Your task to perform on an android device: open app "Truecaller" (install if not already installed) and go to login screen Image 0: 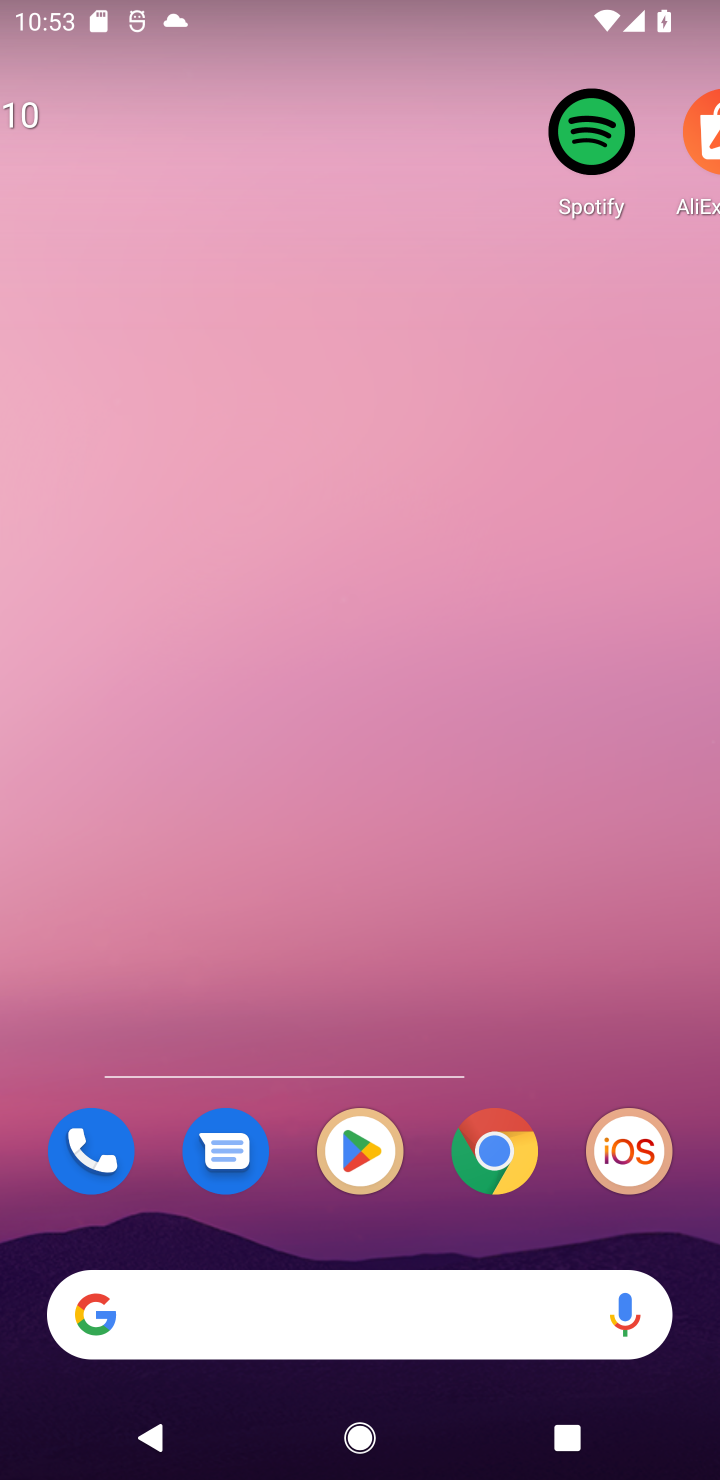
Step 0: press home button
Your task to perform on an android device: open app "Truecaller" (install if not already installed) and go to login screen Image 1: 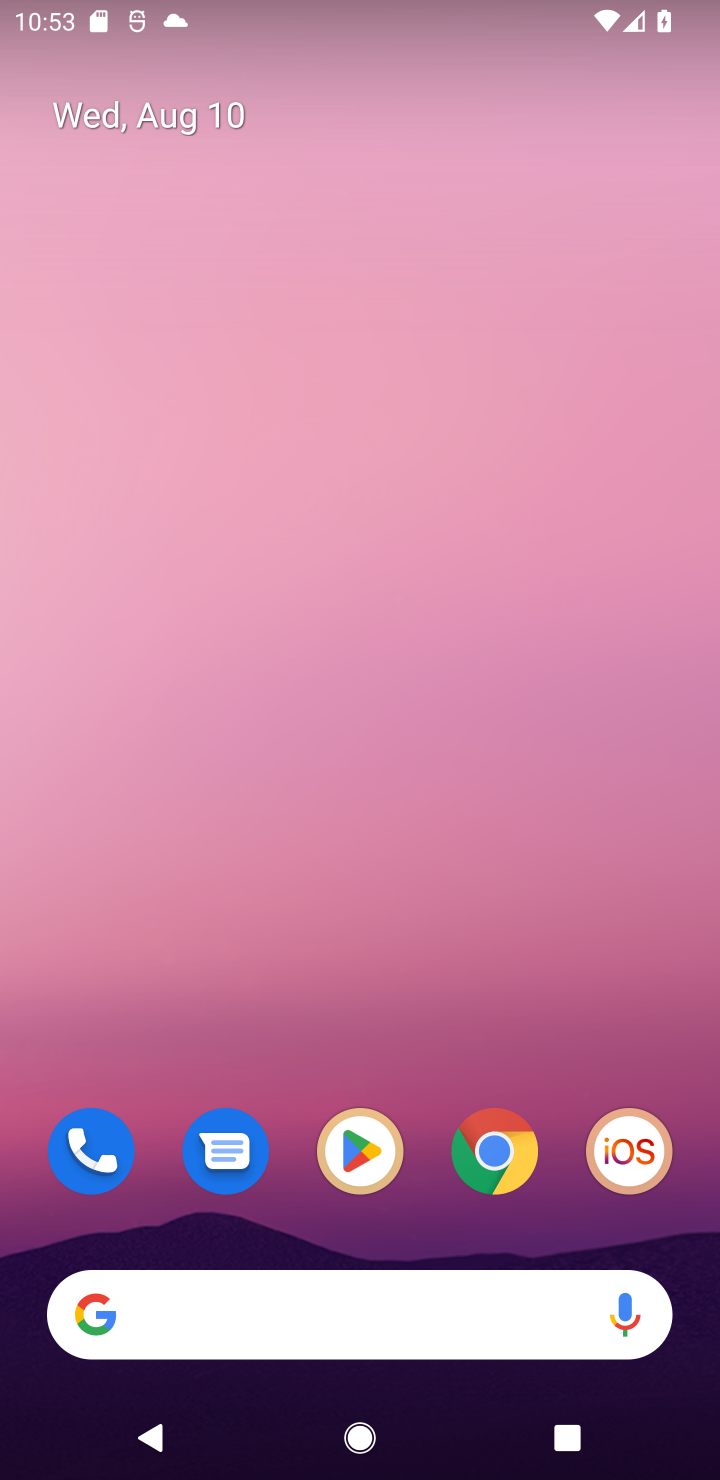
Step 1: drag from (419, 1215) to (505, 215)
Your task to perform on an android device: open app "Truecaller" (install if not already installed) and go to login screen Image 2: 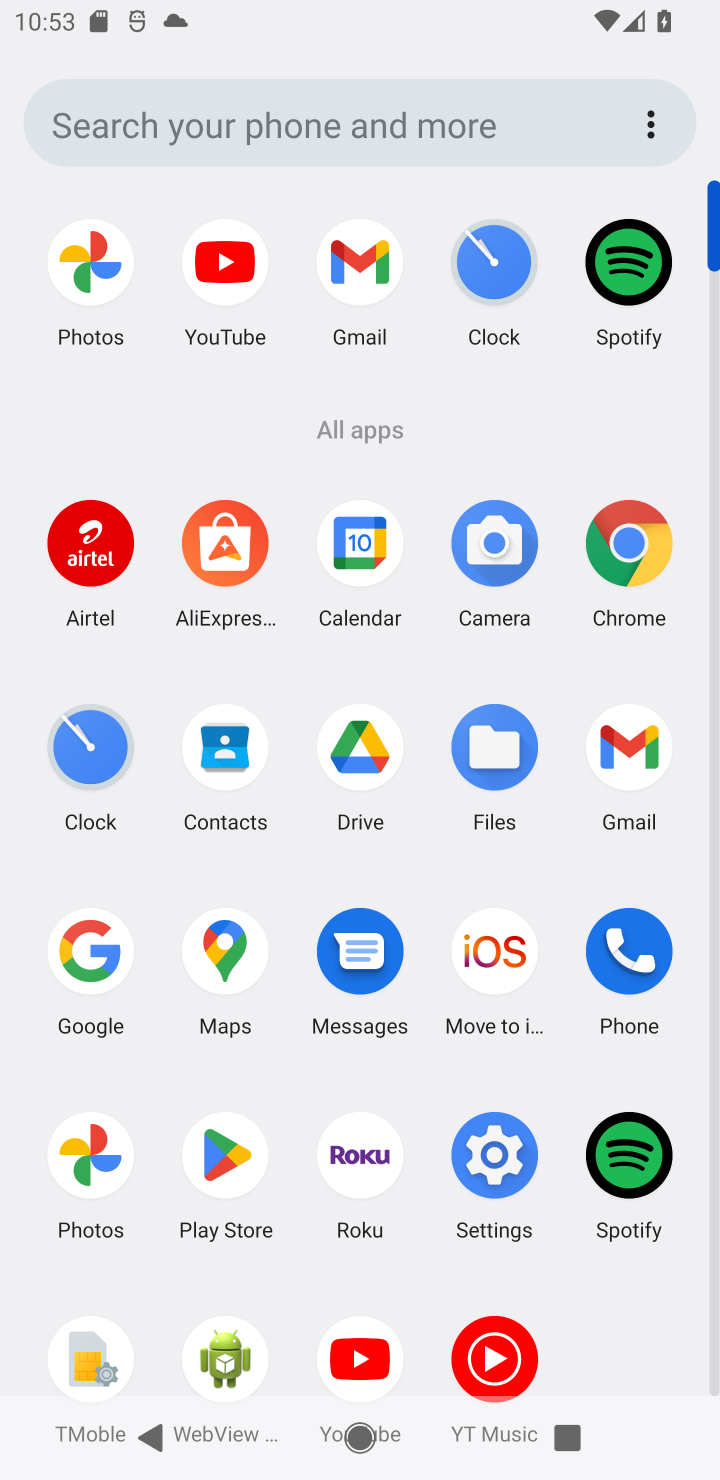
Step 2: click (229, 1153)
Your task to perform on an android device: open app "Truecaller" (install if not already installed) and go to login screen Image 3: 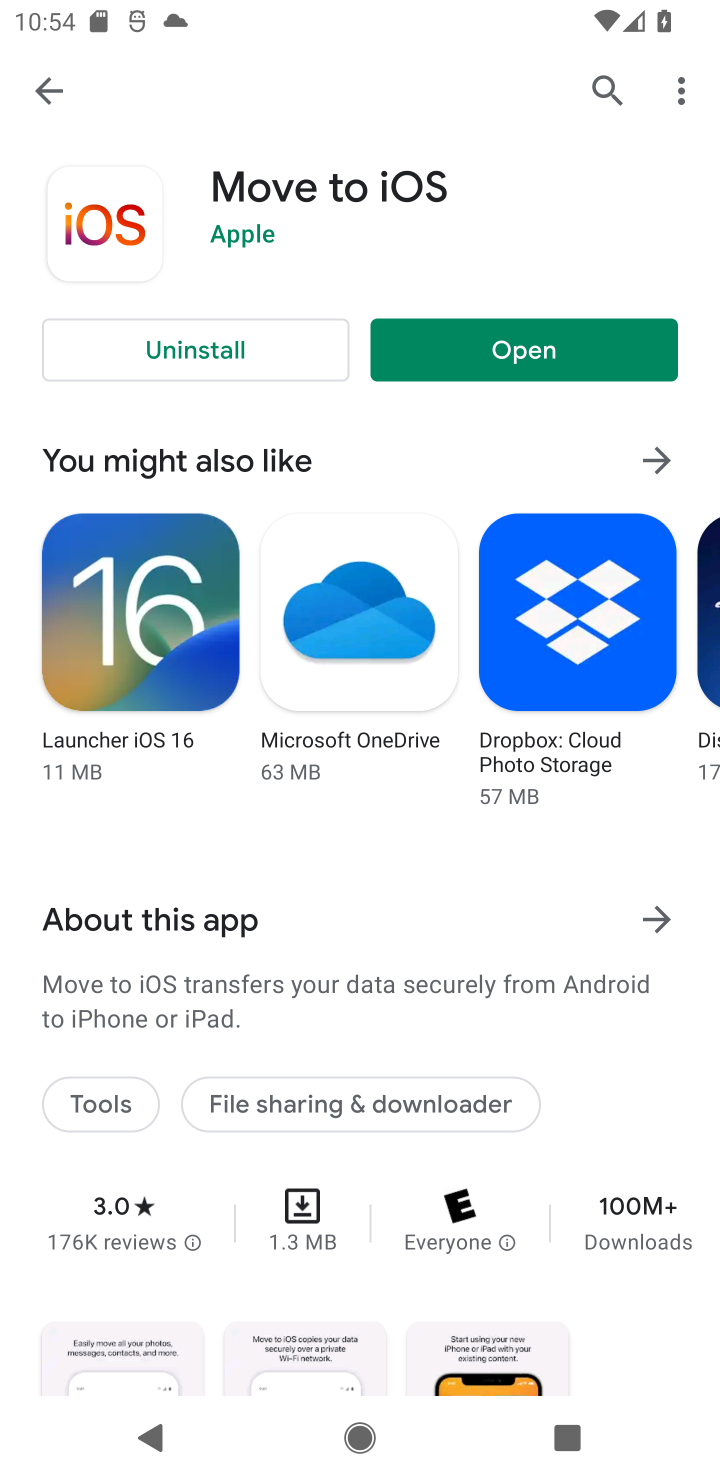
Step 3: click (615, 102)
Your task to perform on an android device: open app "Truecaller" (install if not already installed) and go to login screen Image 4: 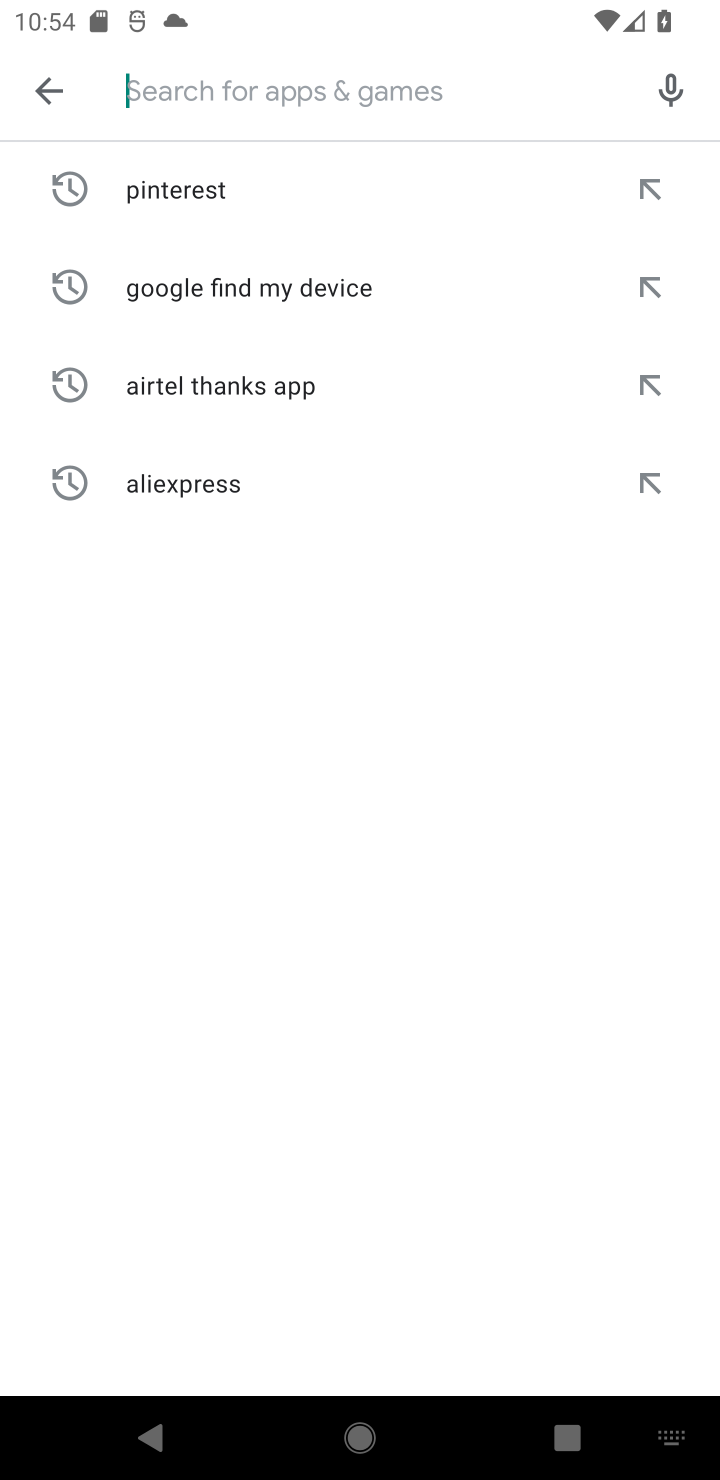
Step 4: type "Truecaller"
Your task to perform on an android device: open app "Truecaller" (install if not already installed) and go to login screen Image 5: 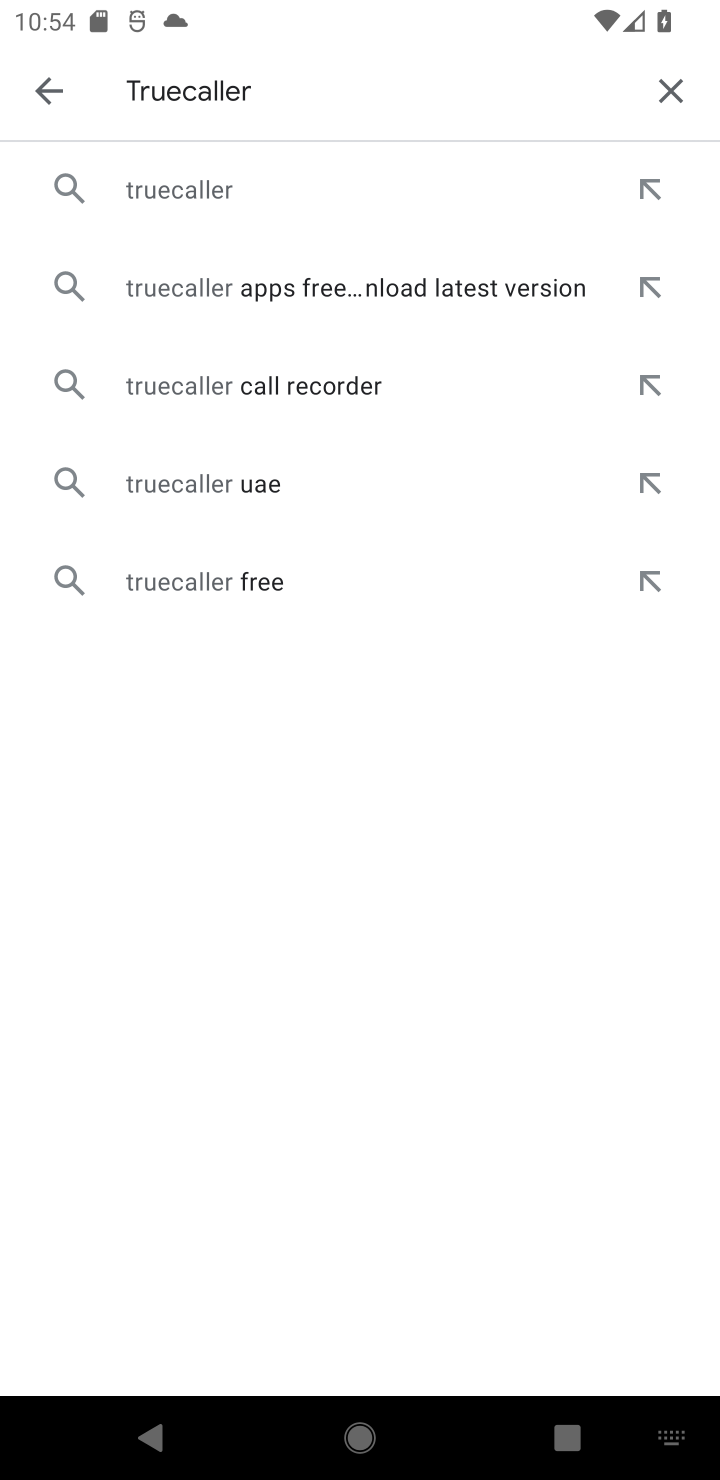
Step 5: click (311, 179)
Your task to perform on an android device: open app "Truecaller" (install if not already installed) and go to login screen Image 6: 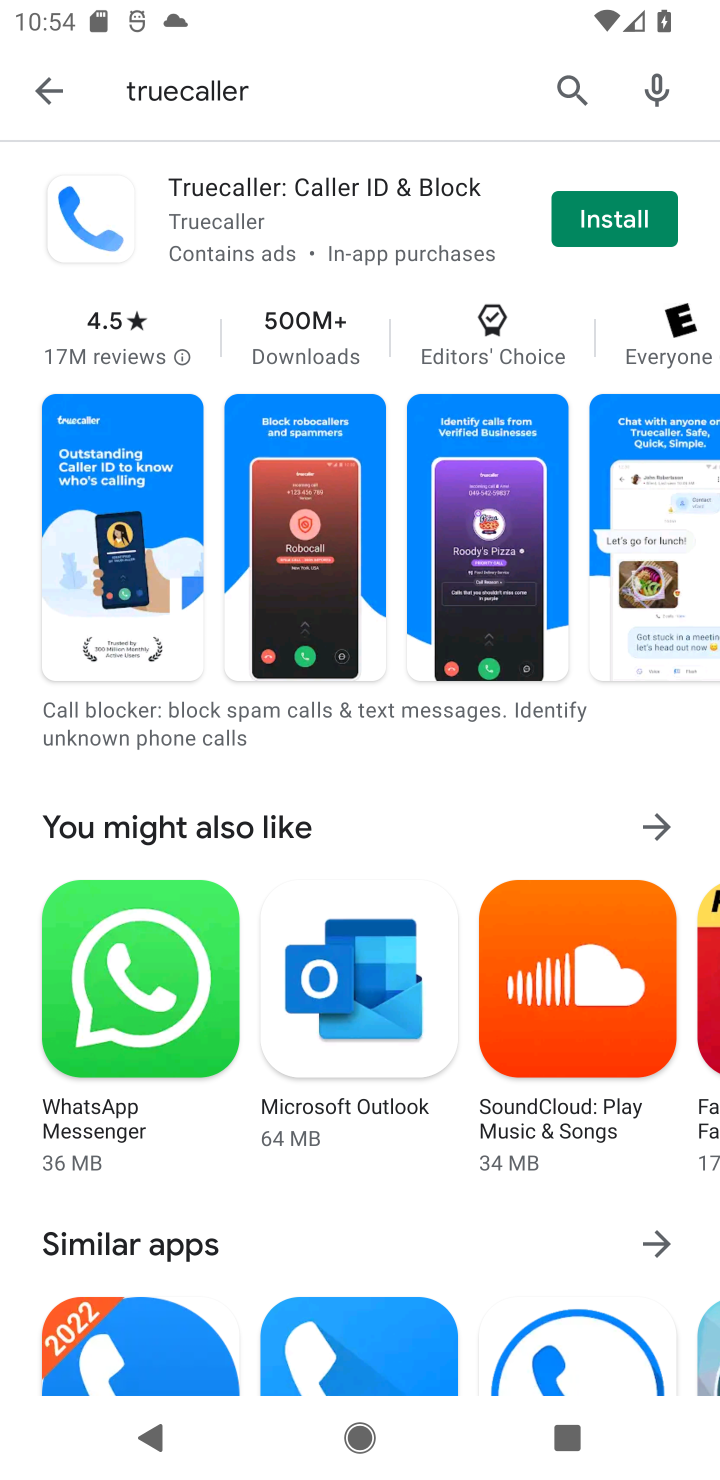
Step 6: click (626, 215)
Your task to perform on an android device: open app "Truecaller" (install if not already installed) and go to login screen Image 7: 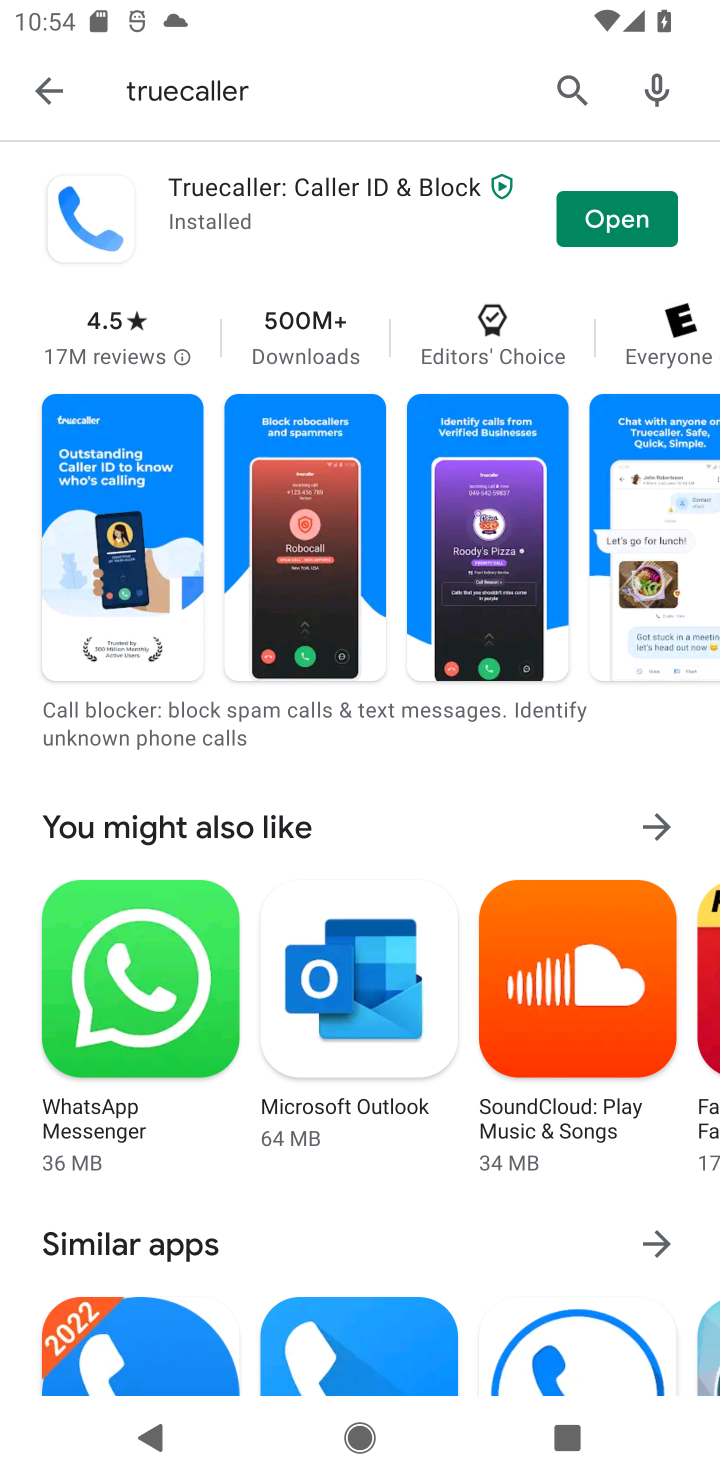
Step 7: click (617, 224)
Your task to perform on an android device: open app "Truecaller" (install if not already installed) and go to login screen Image 8: 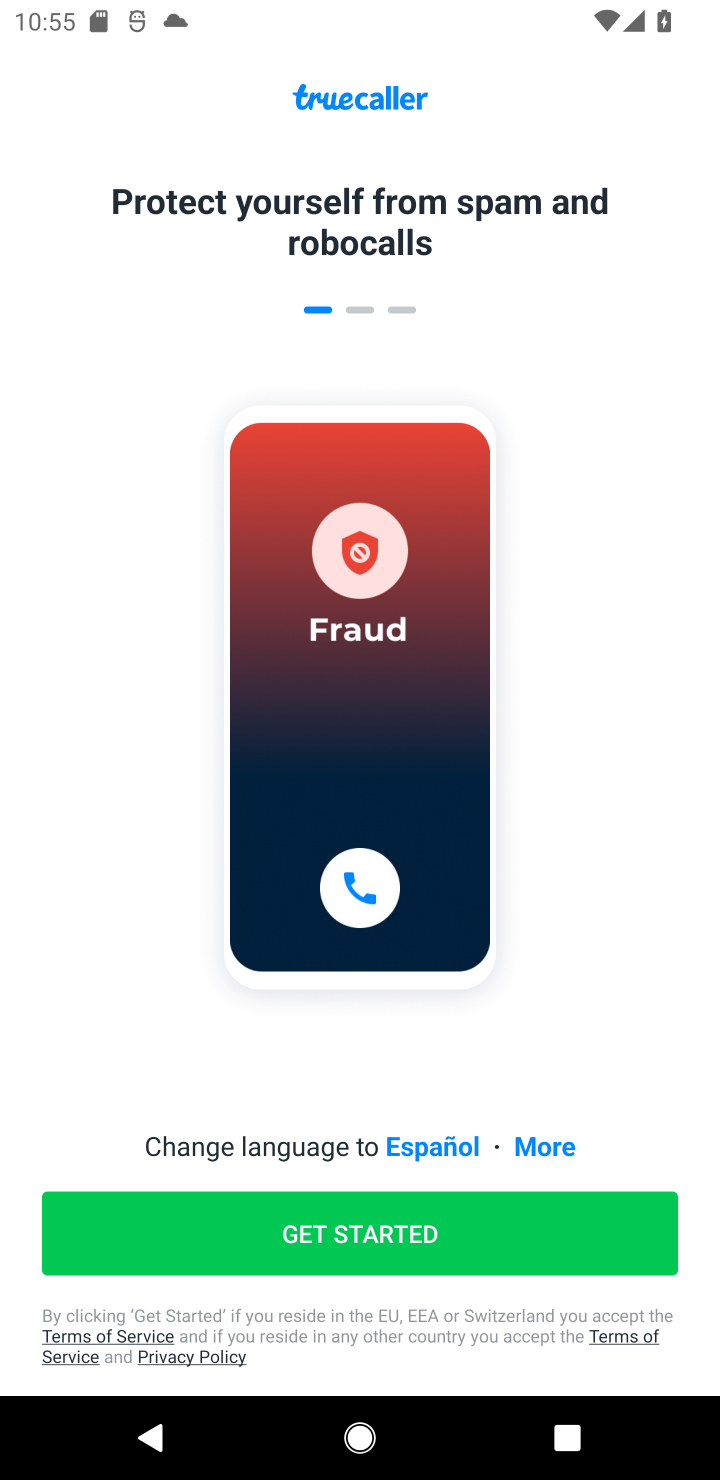
Step 8: click (344, 1240)
Your task to perform on an android device: open app "Truecaller" (install if not already installed) and go to login screen Image 9: 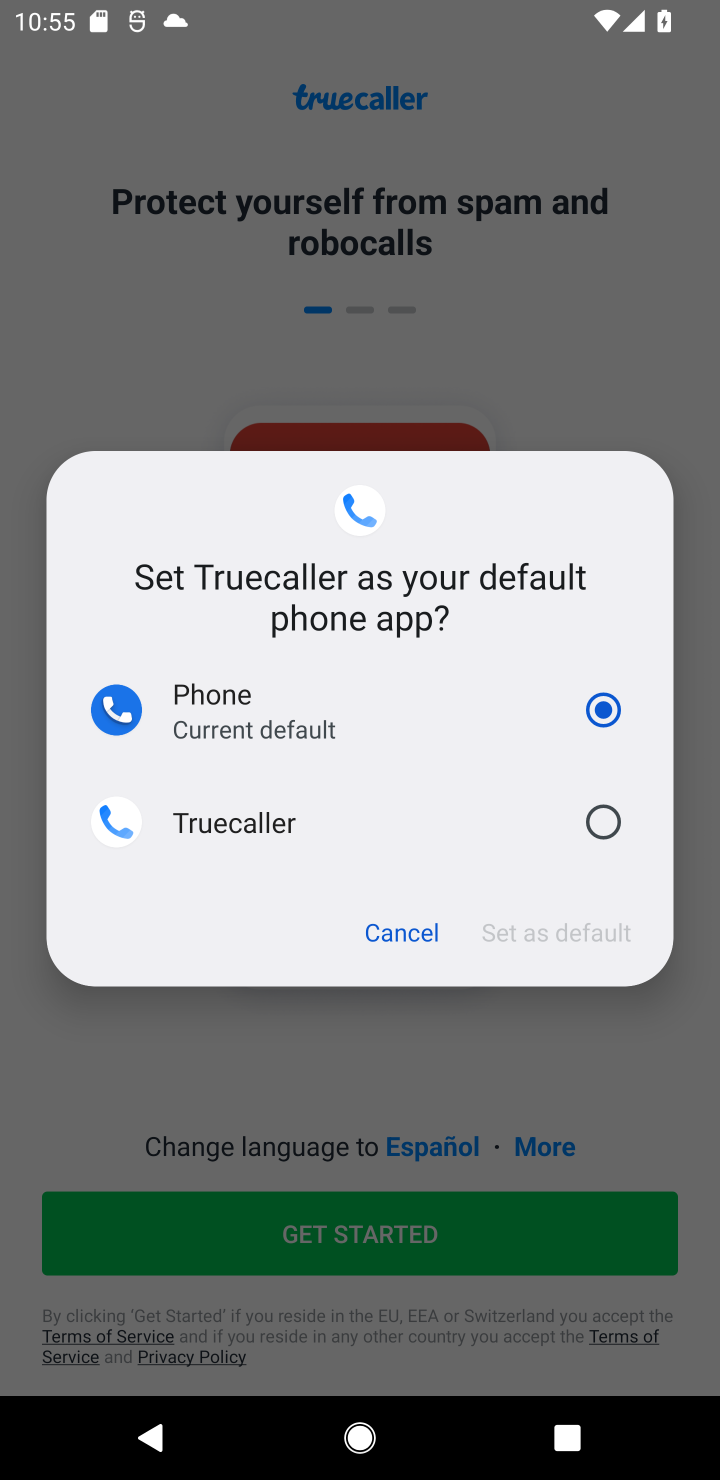
Step 9: click (600, 814)
Your task to perform on an android device: open app "Truecaller" (install if not already installed) and go to login screen Image 10: 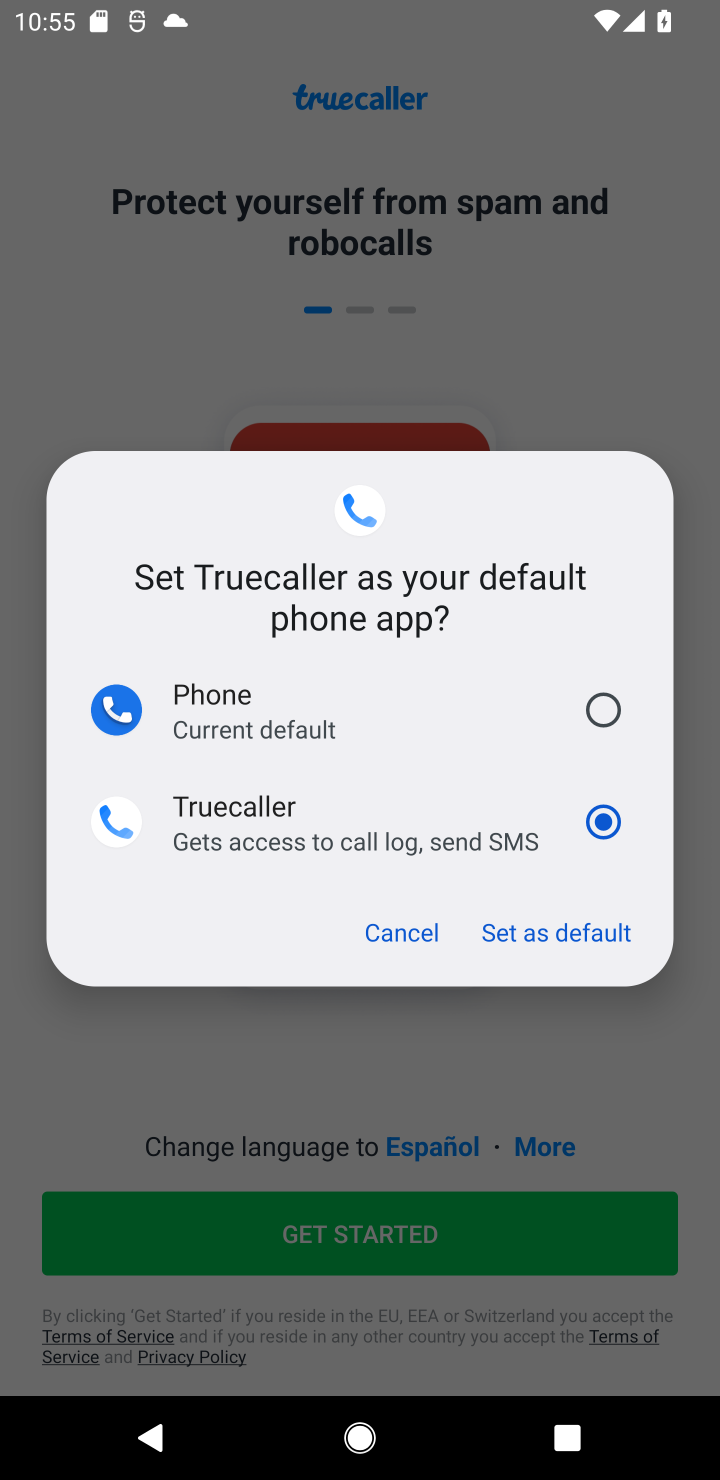
Step 10: click (564, 926)
Your task to perform on an android device: open app "Truecaller" (install if not already installed) and go to login screen Image 11: 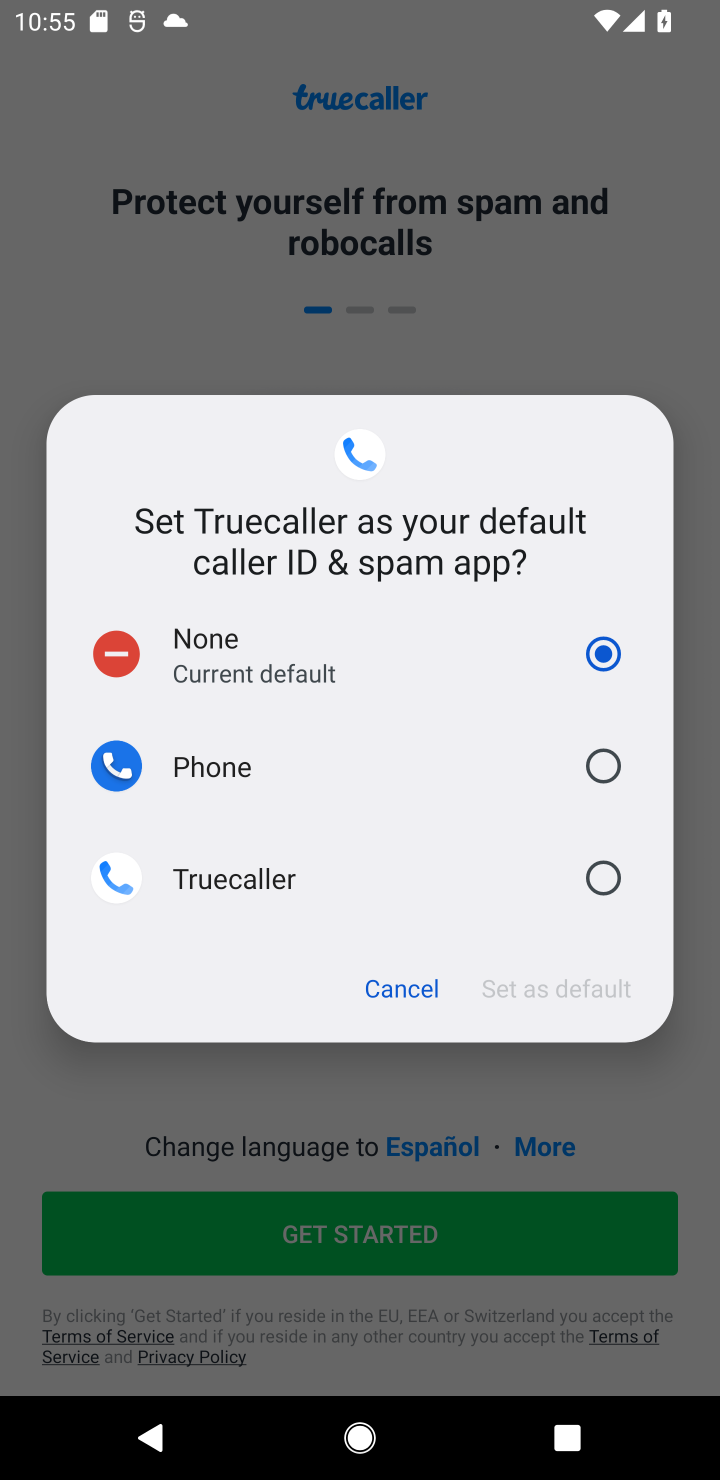
Step 11: click (607, 773)
Your task to perform on an android device: open app "Truecaller" (install if not already installed) and go to login screen Image 12: 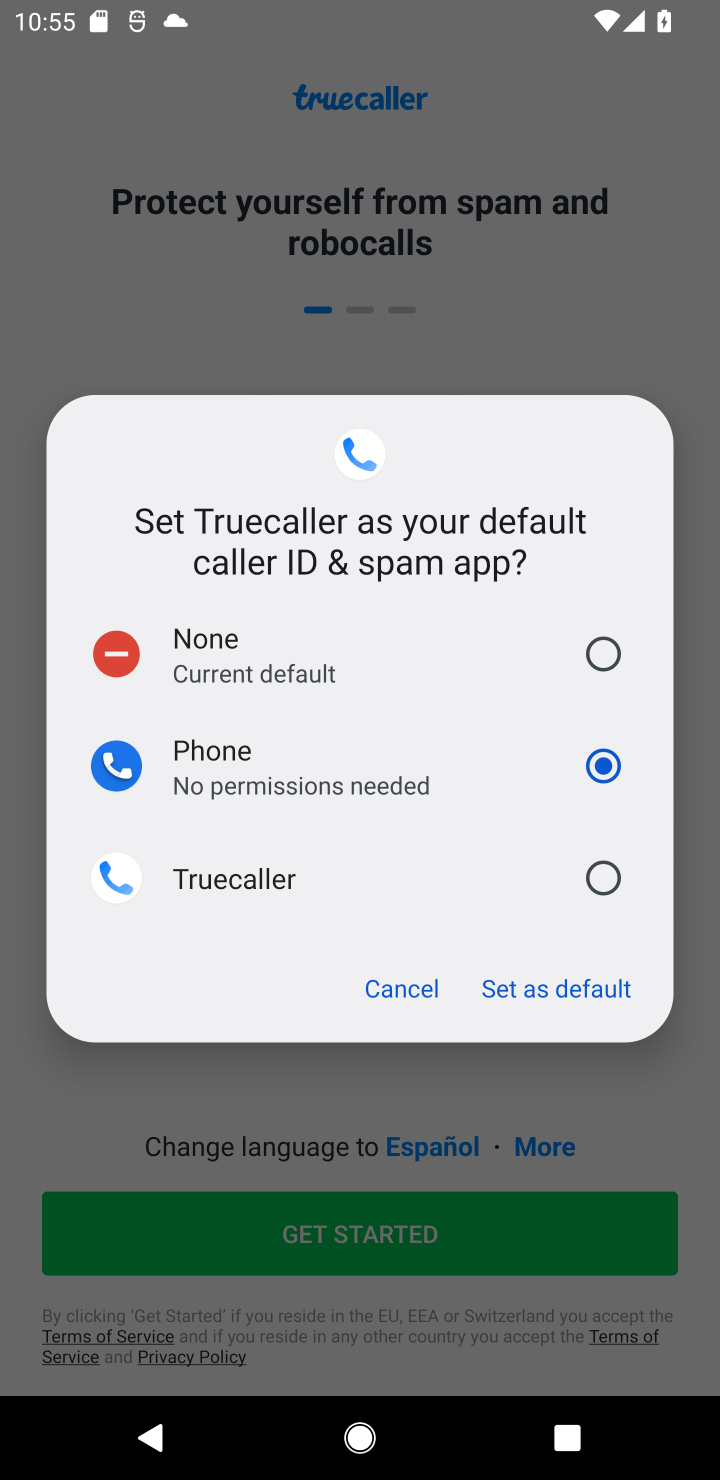
Step 12: click (582, 995)
Your task to perform on an android device: open app "Truecaller" (install if not already installed) and go to login screen Image 13: 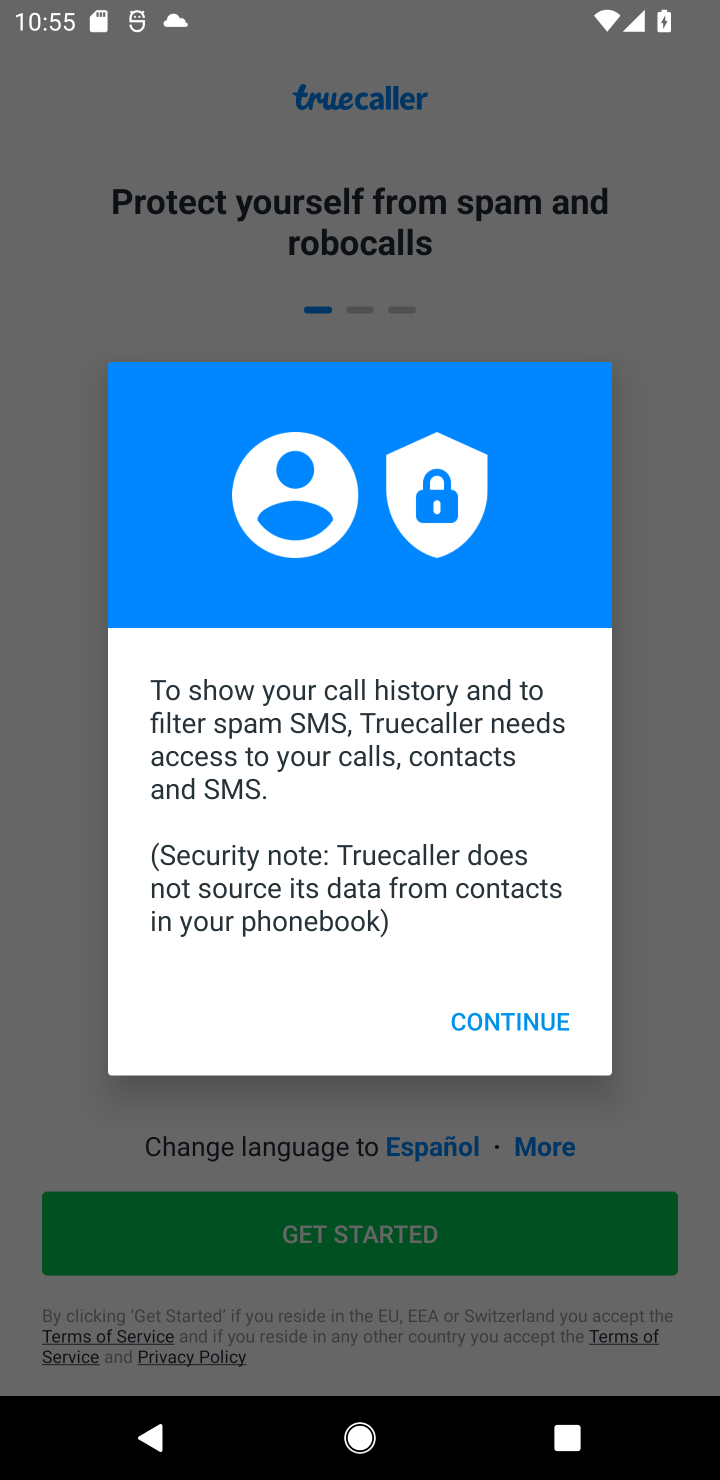
Step 13: click (511, 1028)
Your task to perform on an android device: open app "Truecaller" (install if not already installed) and go to login screen Image 14: 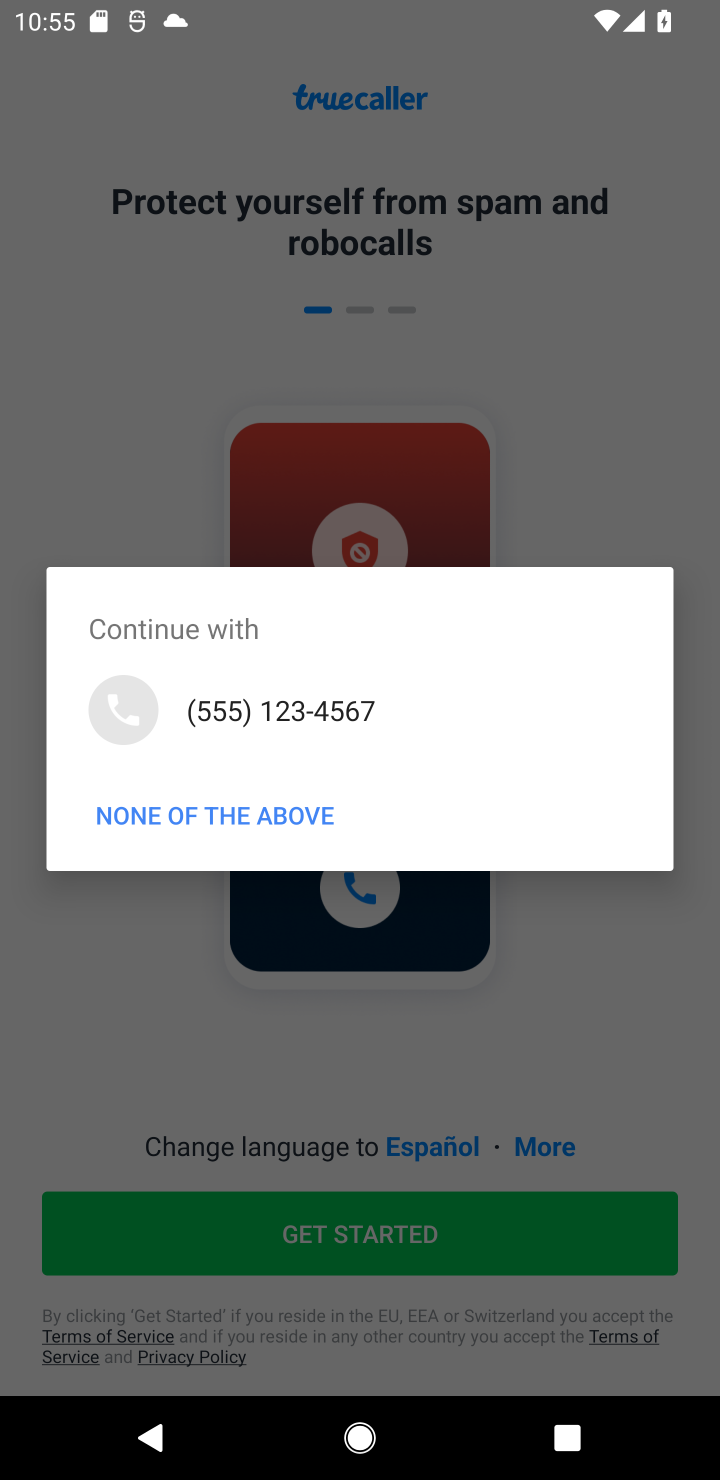
Step 14: click (303, 729)
Your task to perform on an android device: open app "Truecaller" (install if not already installed) and go to login screen Image 15: 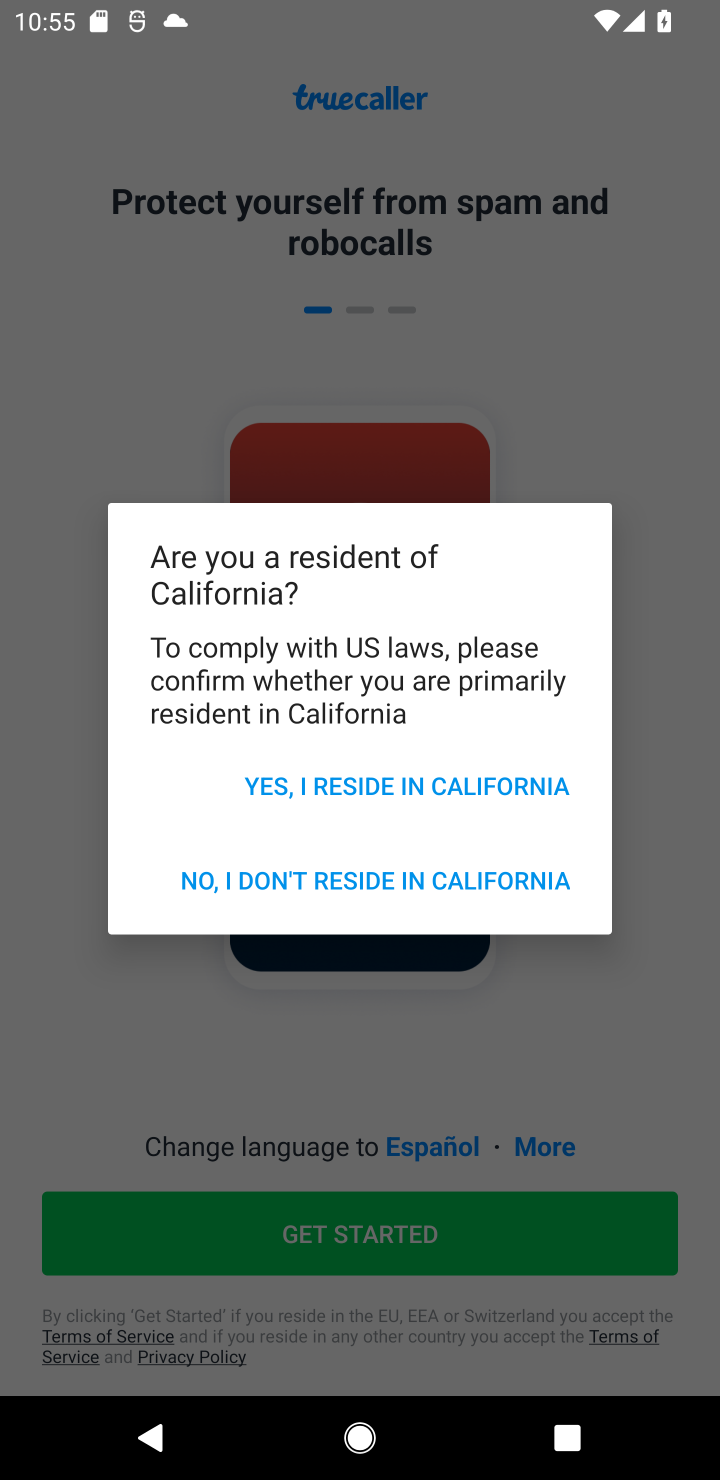
Step 15: click (430, 803)
Your task to perform on an android device: open app "Truecaller" (install if not already installed) and go to login screen Image 16: 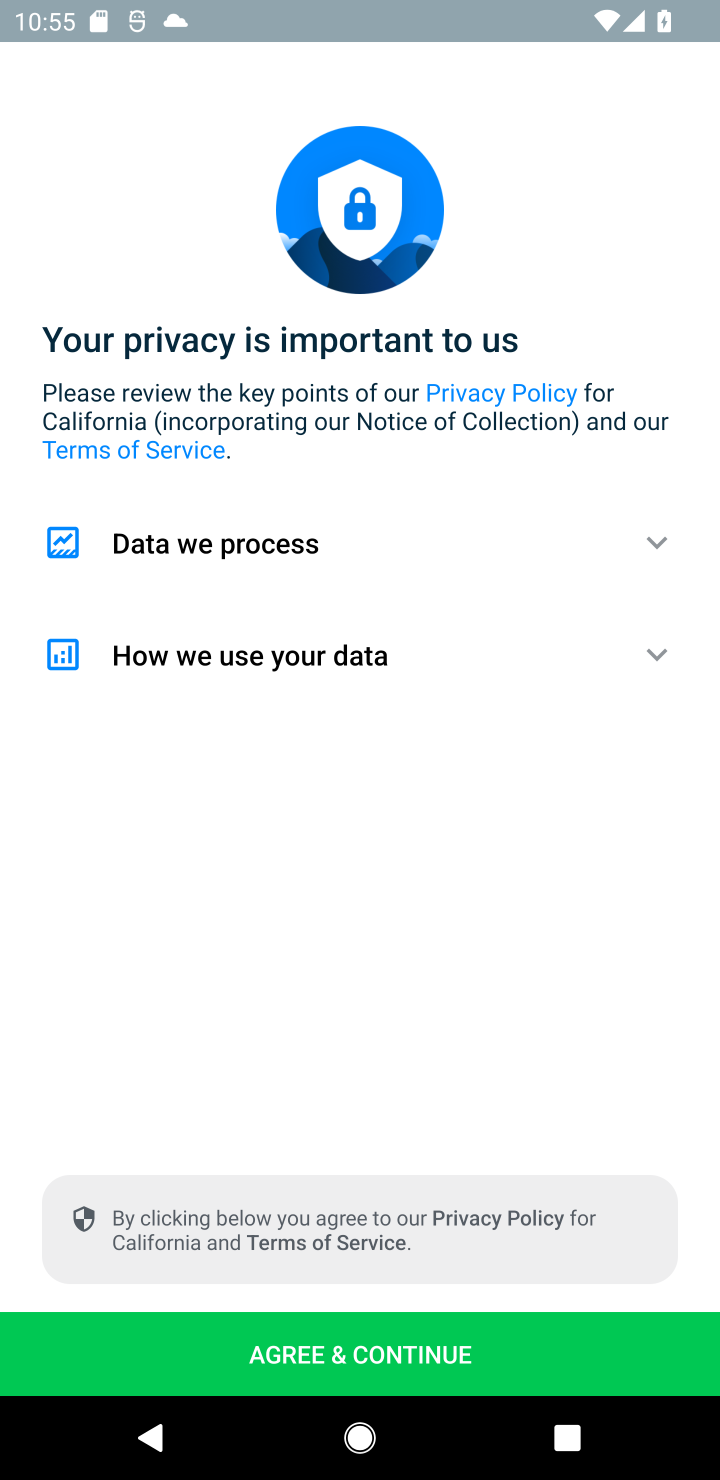
Step 16: click (473, 1357)
Your task to perform on an android device: open app "Truecaller" (install if not already installed) and go to login screen Image 17: 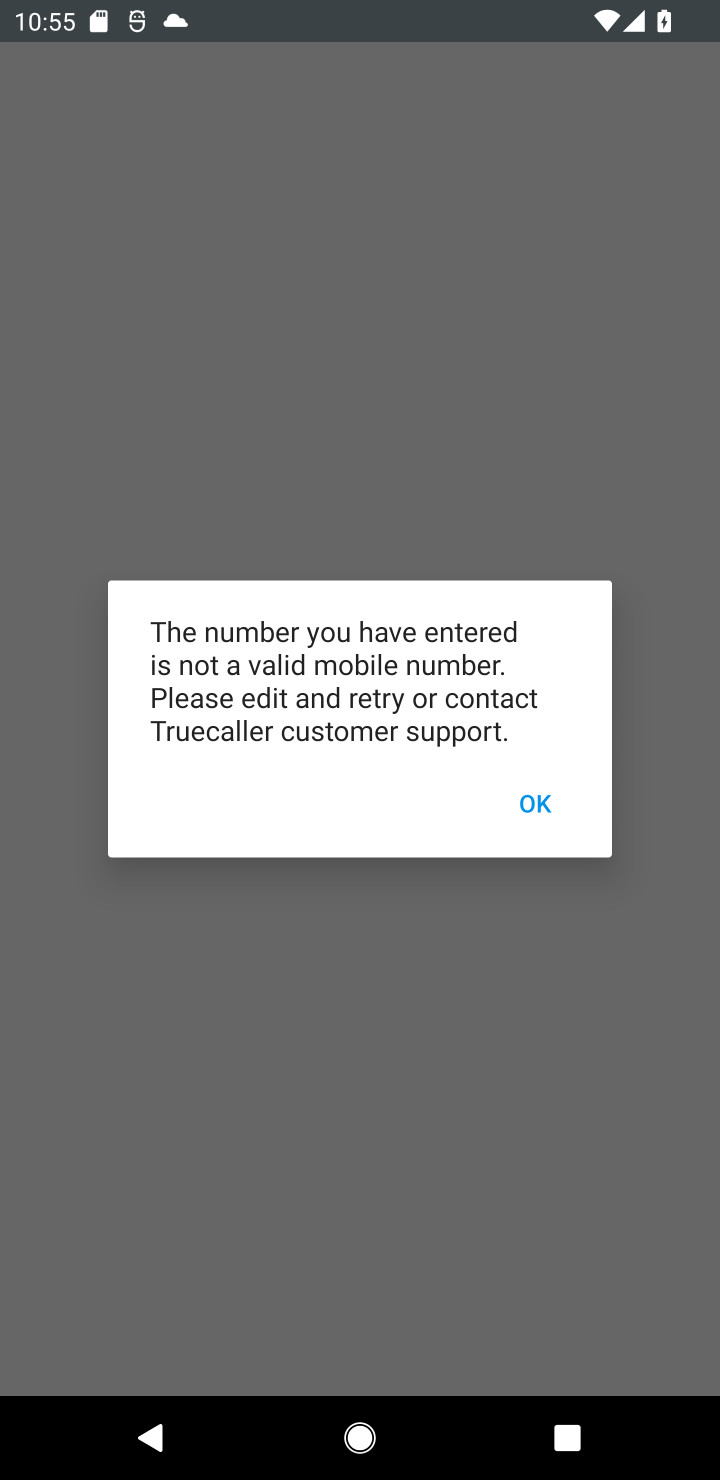
Step 17: click (528, 785)
Your task to perform on an android device: open app "Truecaller" (install if not already installed) and go to login screen Image 18: 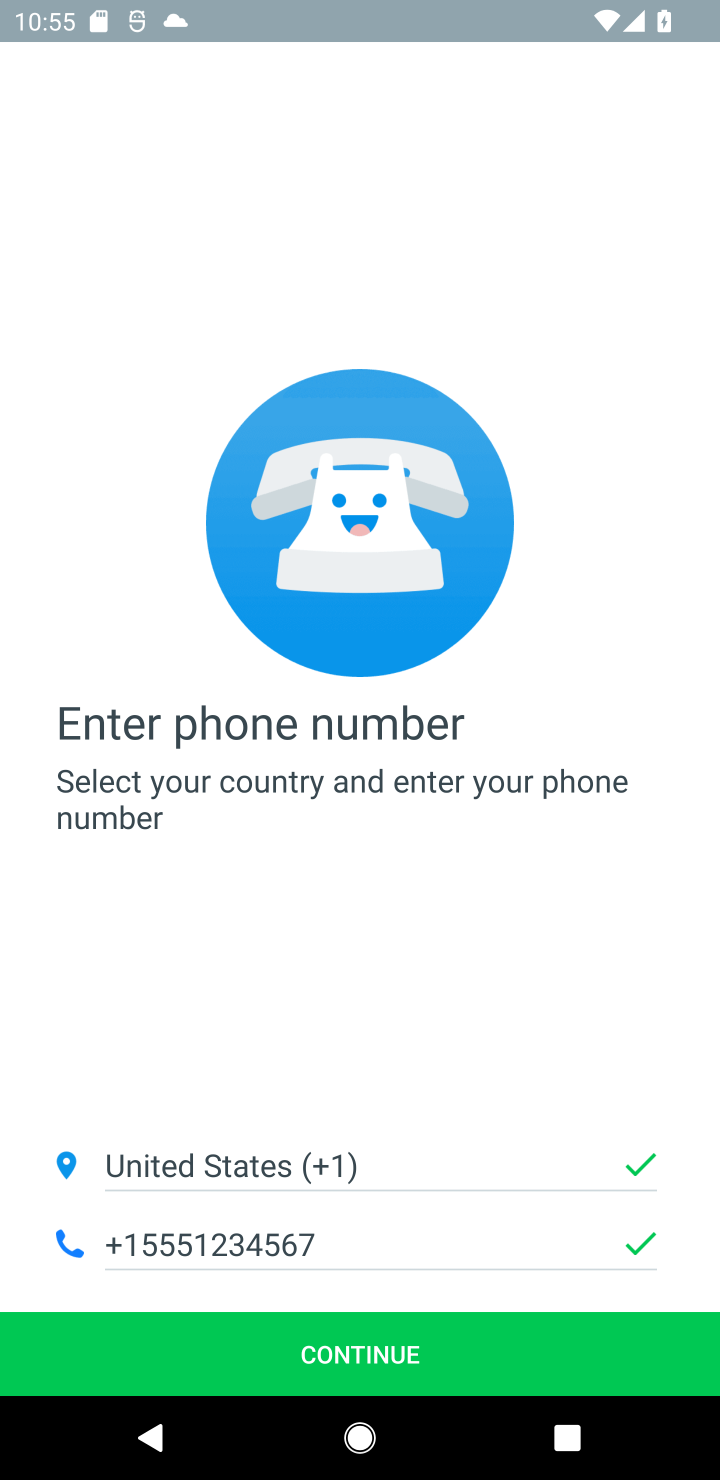
Step 18: task complete